Your task to perform on an android device: Go to battery settings Image 0: 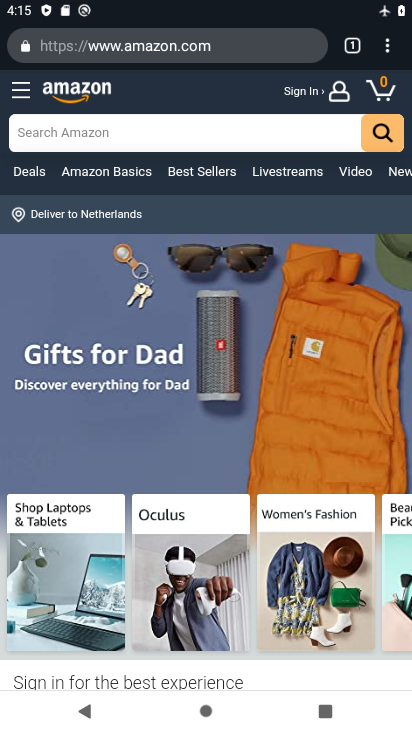
Step 0: press home button
Your task to perform on an android device: Go to battery settings Image 1: 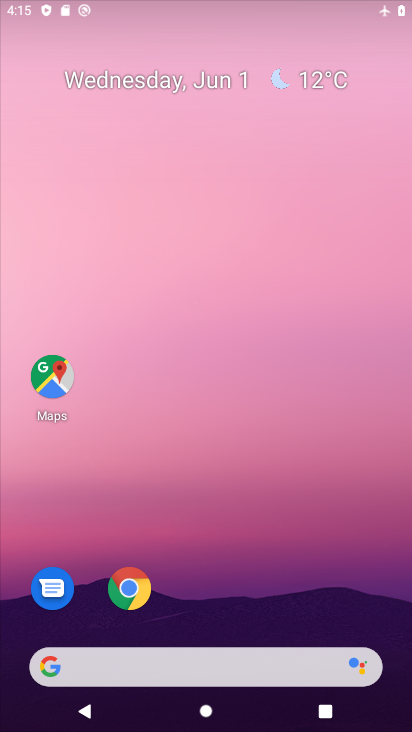
Step 1: drag from (353, 592) to (283, 0)
Your task to perform on an android device: Go to battery settings Image 2: 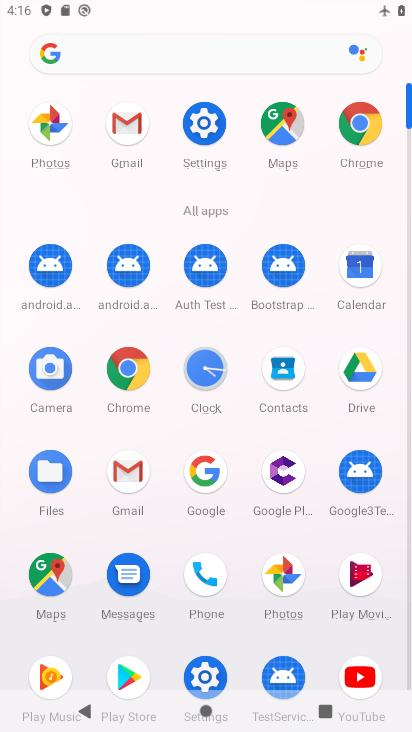
Step 2: click (207, 118)
Your task to perform on an android device: Go to battery settings Image 3: 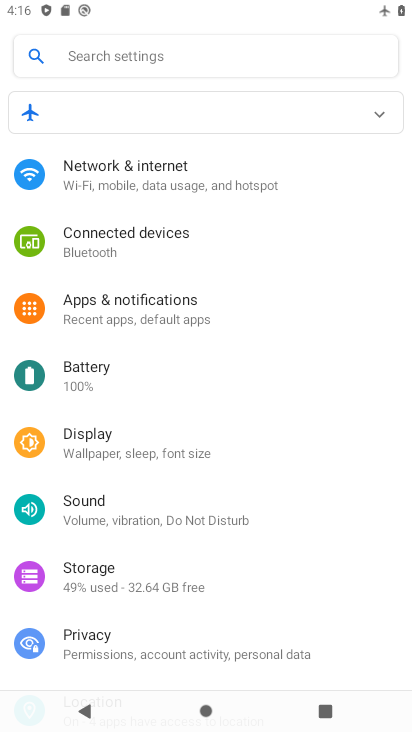
Step 3: drag from (244, 569) to (229, 344)
Your task to perform on an android device: Go to battery settings Image 4: 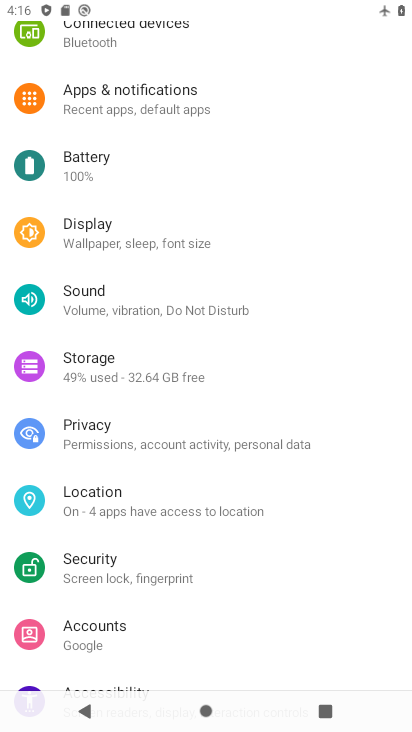
Step 4: click (89, 173)
Your task to perform on an android device: Go to battery settings Image 5: 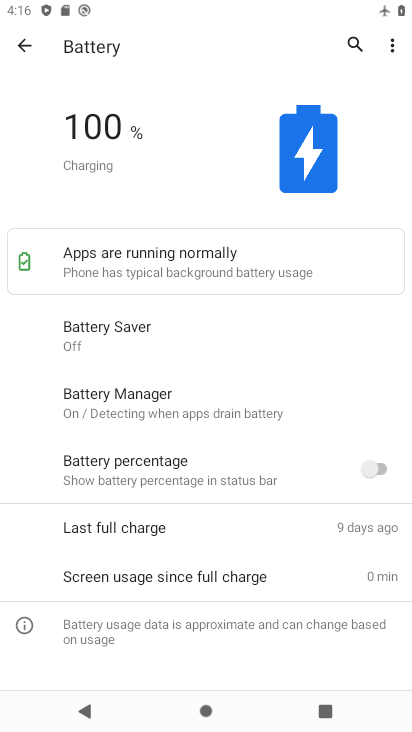
Step 5: task complete